Your task to perform on an android device: read, delete, or share a saved page in the chrome app Image 0: 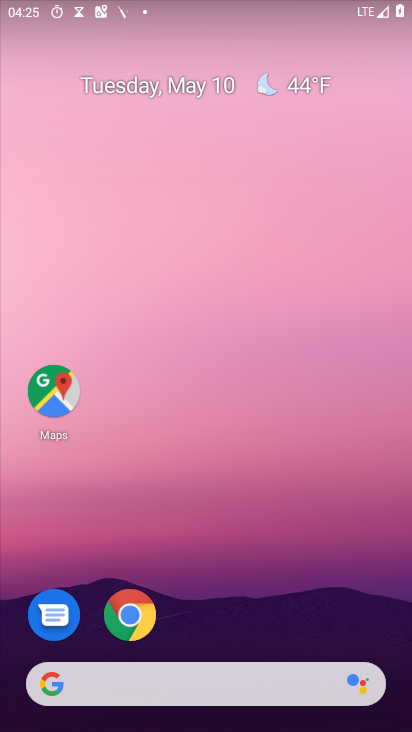
Step 0: drag from (312, 657) to (330, 8)
Your task to perform on an android device: read, delete, or share a saved page in the chrome app Image 1: 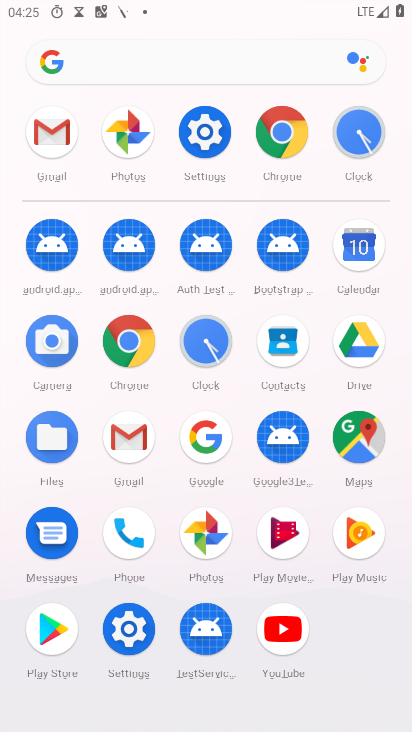
Step 1: click (135, 336)
Your task to perform on an android device: read, delete, or share a saved page in the chrome app Image 2: 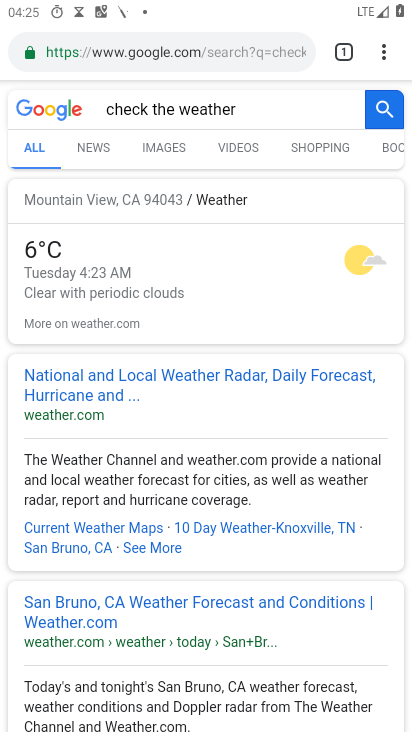
Step 2: task complete